Your task to perform on an android device: Go to Wikipedia Image 0: 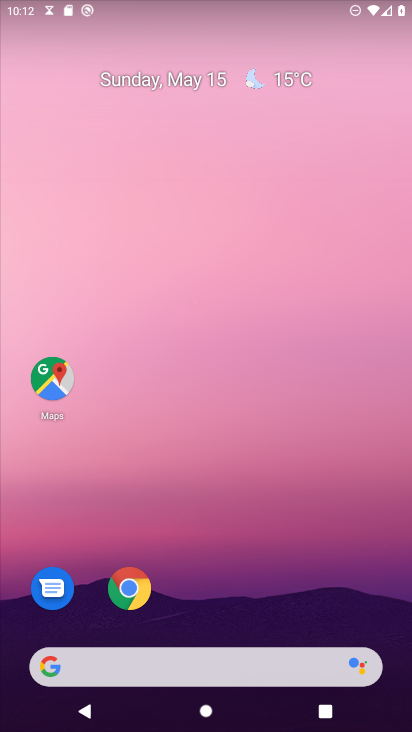
Step 0: click (123, 586)
Your task to perform on an android device: Go to Wikipedia Image 1: 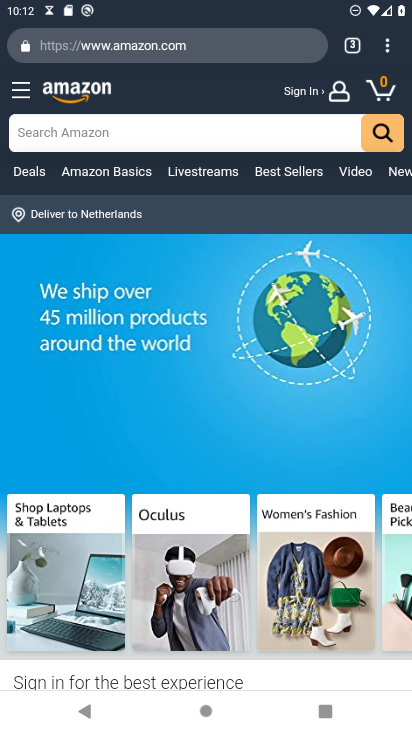
Step 1: click (189, 46)
Your task to perform on an android device: Go to Wikipedia Image 2: 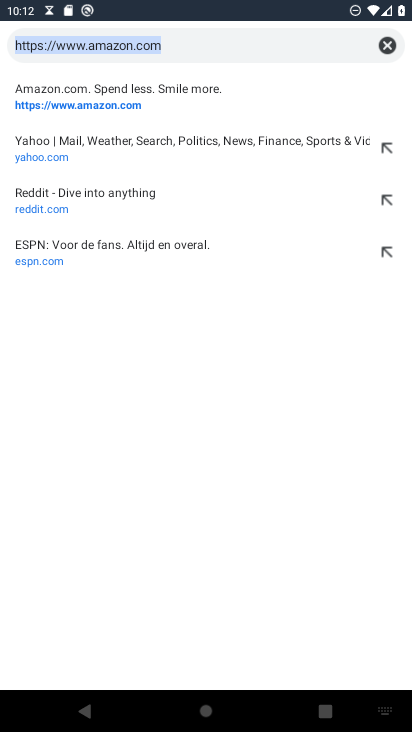
Step 2: type "wikipedia"
Your task to perform on an android device: Go to Wikipedia Image 3: 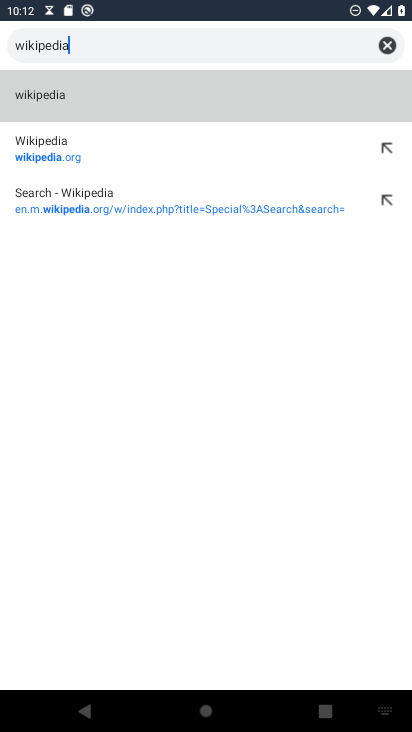
Step 3: click (120, 83)
Your task to perform on an android device: Go to Wikipedia Image 4: 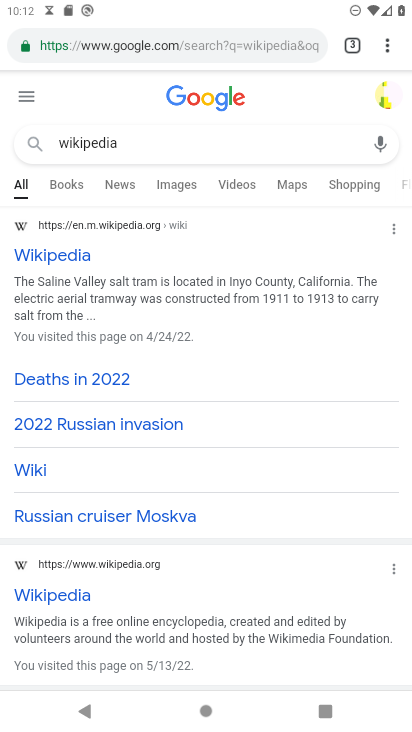
Step 4: task complete